Your task to perform on an android device: Open privacy settings Image 0: 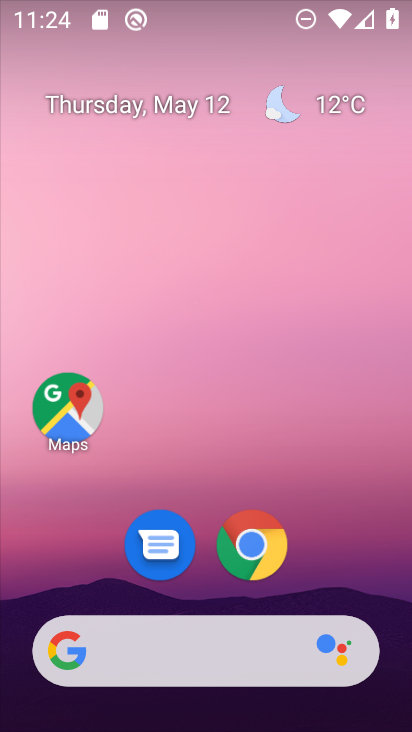
Step 0: drag from (211, 593) to (212, 170)
Your task to perform on an android device: Open privacy settings Image 1: 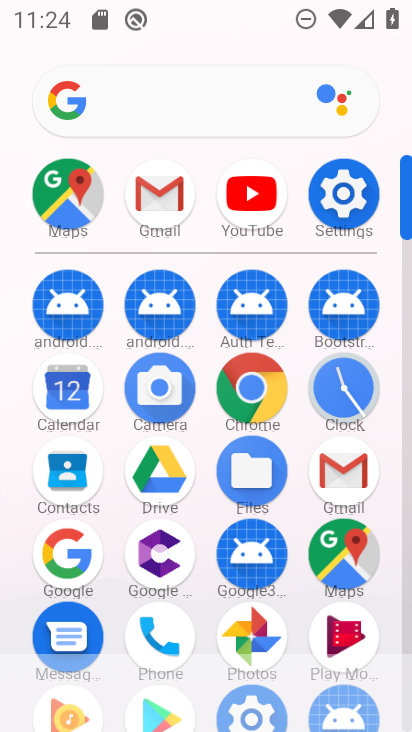
Step 1: click (338, 185)
Your task to perform on an android device: Open privacy settings Image 2: 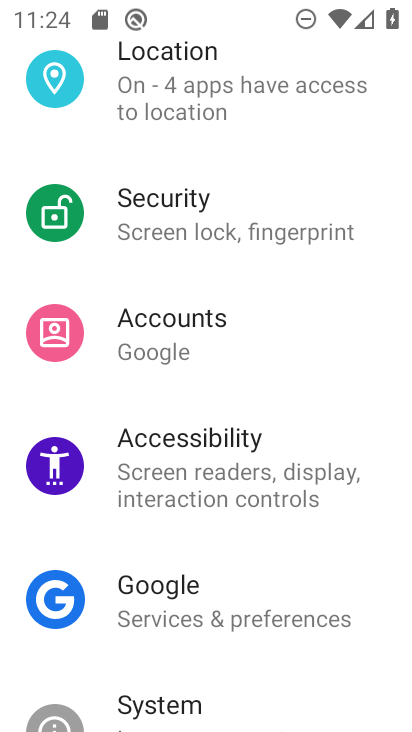
Step 2: drag from (130, 139) to (150, 717)
Your task to perform on an android device: Open privacy settings Image 3: 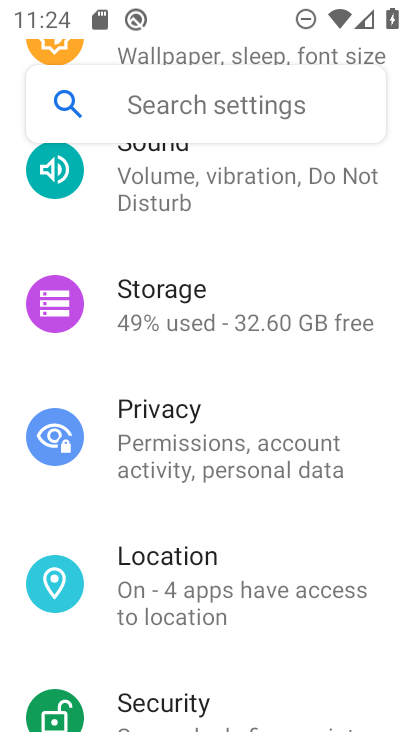
Step 3: click (109, 428)
Your task to perform on an android device: Open privacy settings Image 4: 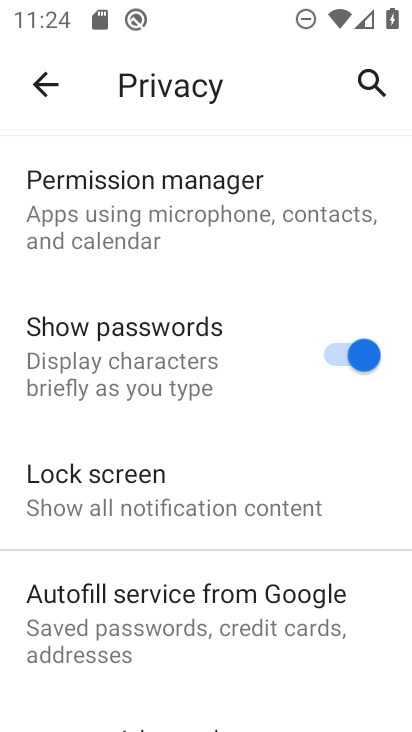
Step 4: drag from (143, 671) to (151, 184)
Your task to perform on an android device: Open privacy settings Image 5: 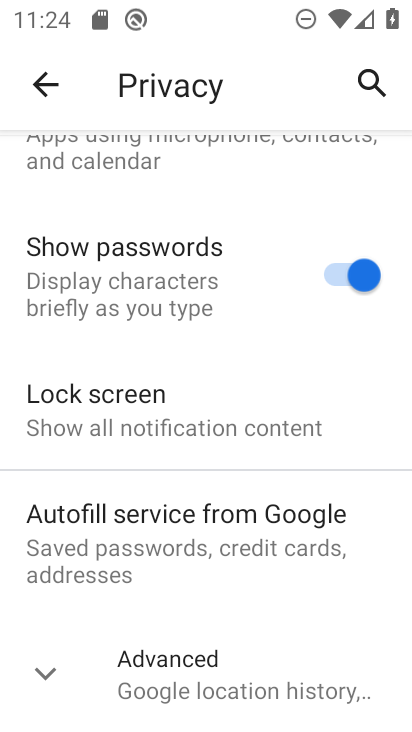
Step 5: click (50, 665)
Your task to perform on an android device: Open privacy settings Image 6: 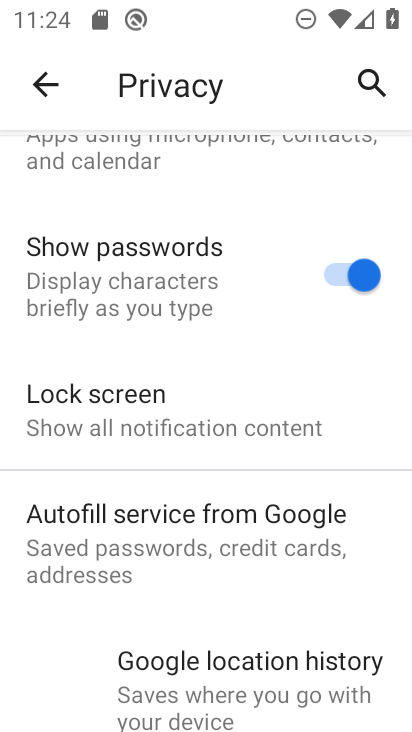
Step 6: task complete